Your task to perform on an android device: toggle improve location accuracy Image 0: 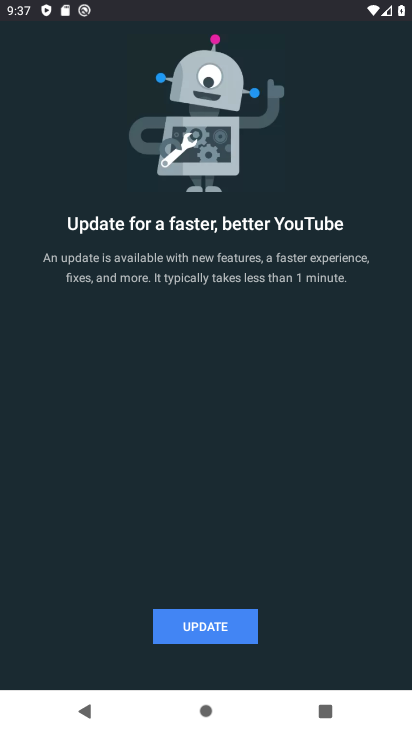
Step 0: press back button
Your task to perform on an android device: toggle improve location accuracy Image 1: 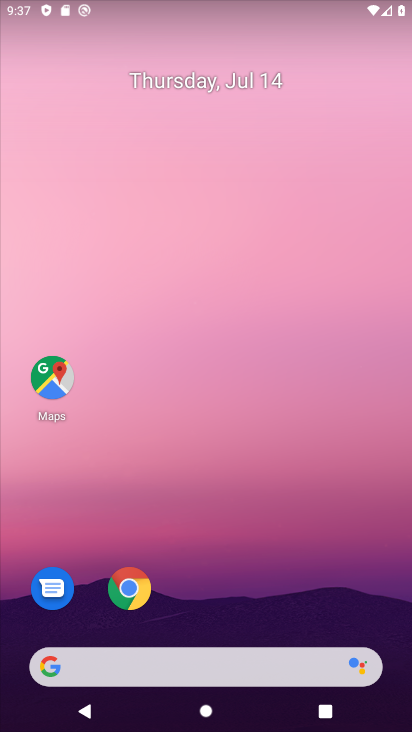
Step 1: drag from (216, 609) to (351, 9)
Your task to perform on an android device: toggle improve location accuracy Image 2: 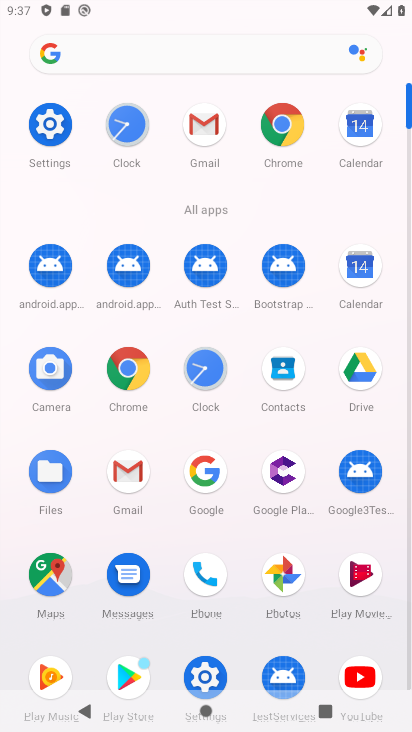
Step 2: click (61, 123)
Your task to perform on an android device: toggle improve location accuracy Image 3: 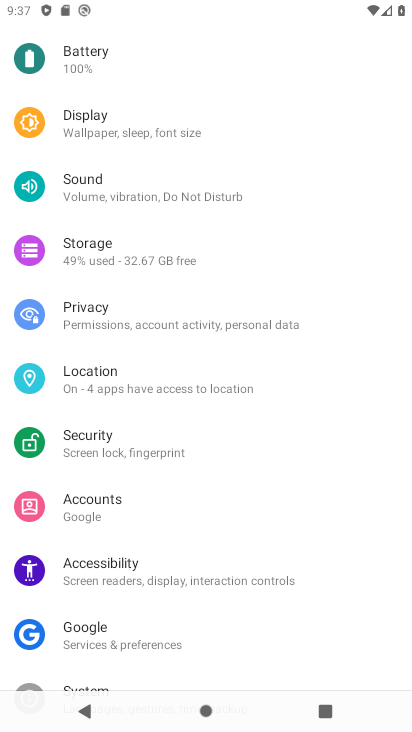
Step 3: click (108, 385)
Your task to perform on an android device: toggle improve location accuracy Image 4: 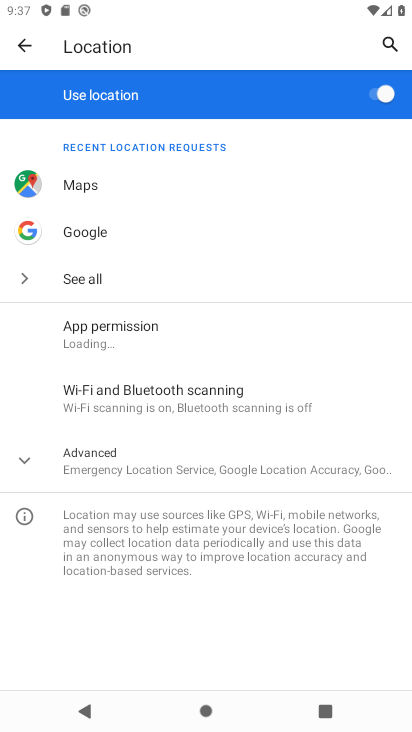
Step 4: click (140, 466)
Your task to perform on an android device: toggle improve location accuracy Image 5: 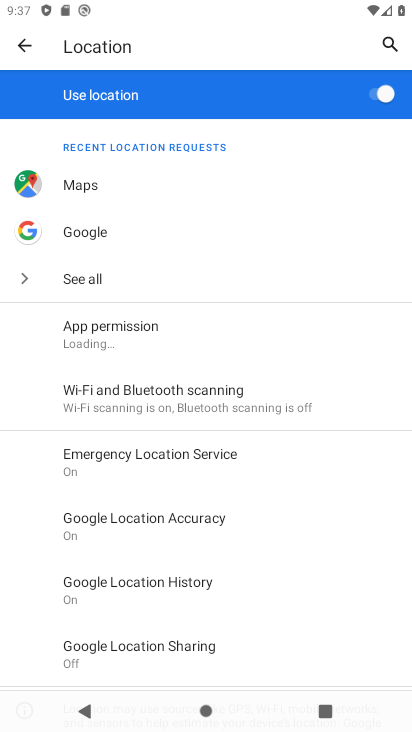
Step 5: click (167, 514)
Your task to perform on an android device: toggle improve location accuracy Image 6: 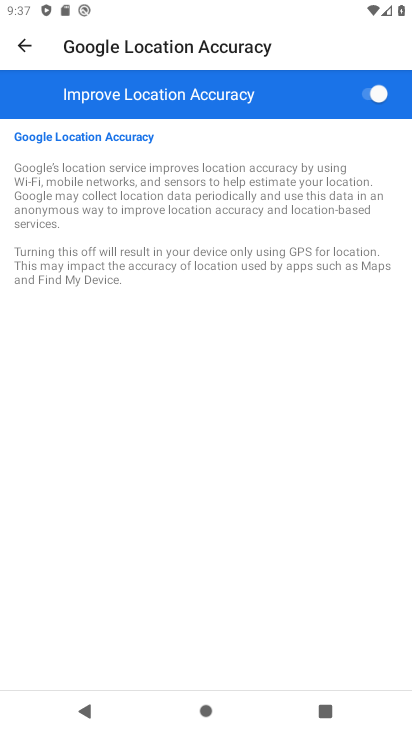
Step 6: click (365, 86)
Your task to perform on an android device: toggle improve location accuracy Image 7: 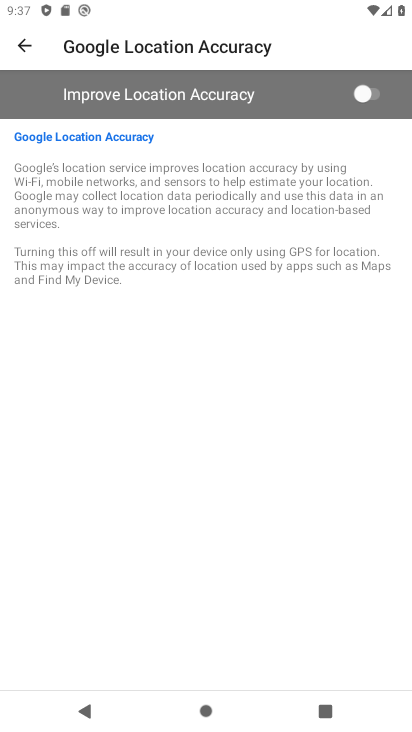
Step 7: task complete